Your task to perform on an android device: Open network settings Image 0: 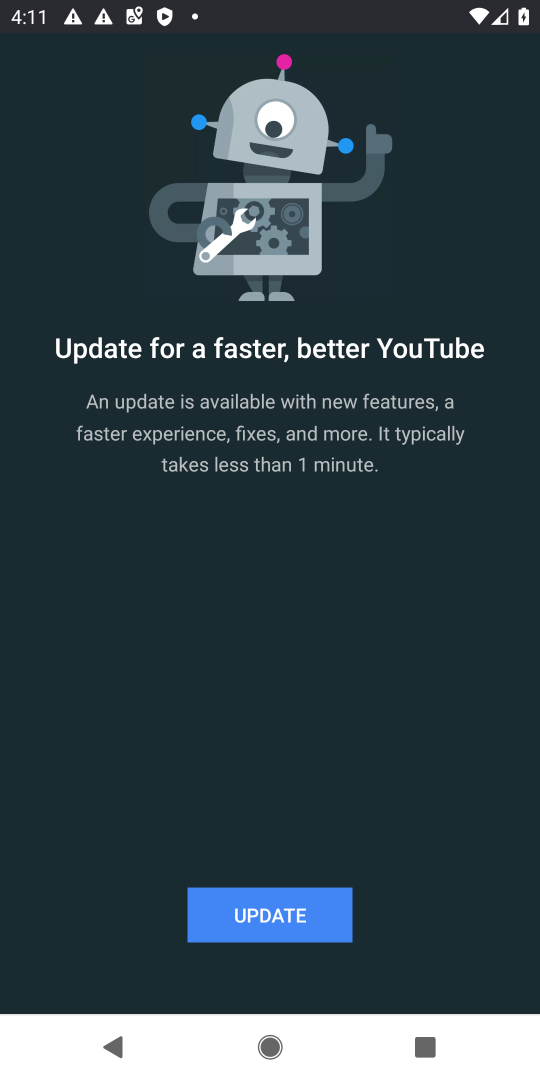
Step 0: press home button
Your task to perform on an android device: Open network settings Image 1: 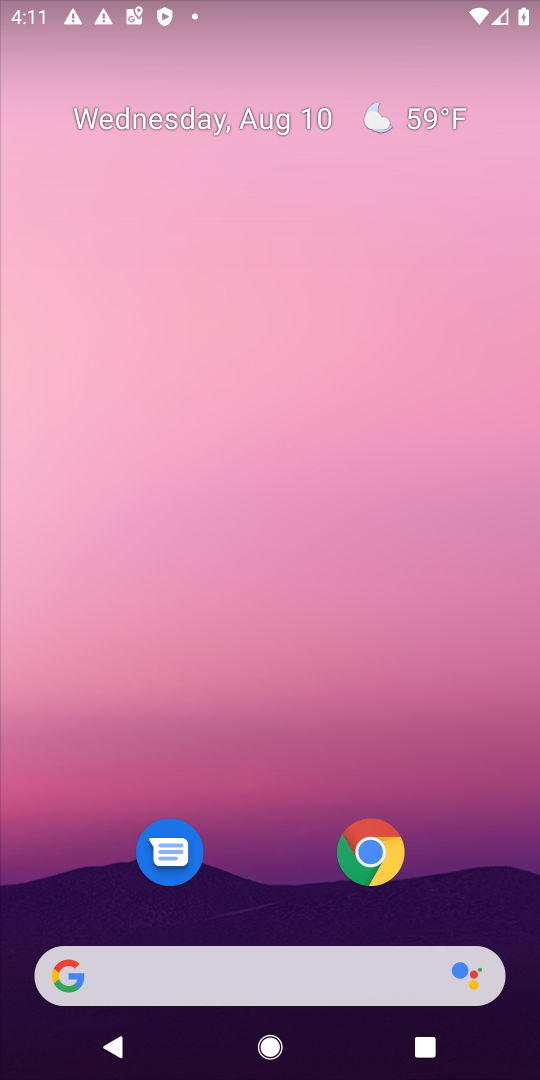
Step 1: drag from (521, 841) to (231, 314)
Your task to perform on an android device: Open network settings Image 2: 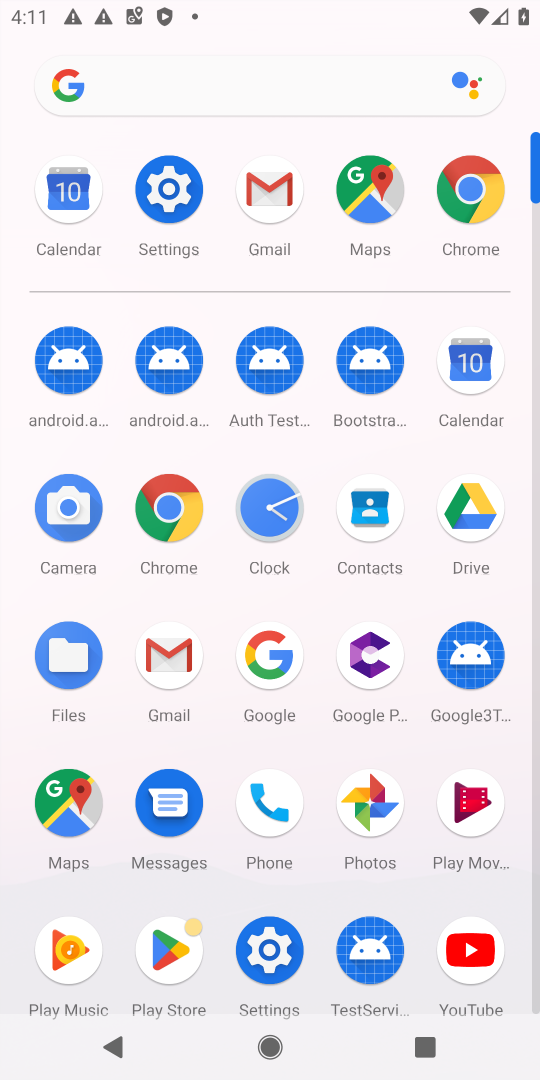
Step 2: click (275, 956)
Your task to perform on an android device: Open network settings Image 3: 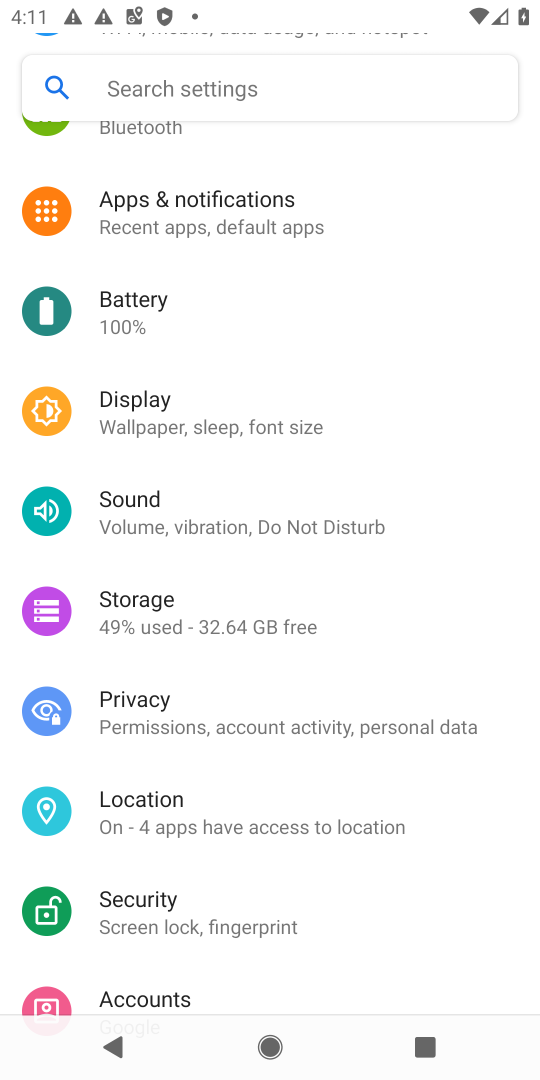
Step 3: drag from (335, 177) to (537, 761)
Your task to perform on an android device: Open network settings Image 4: 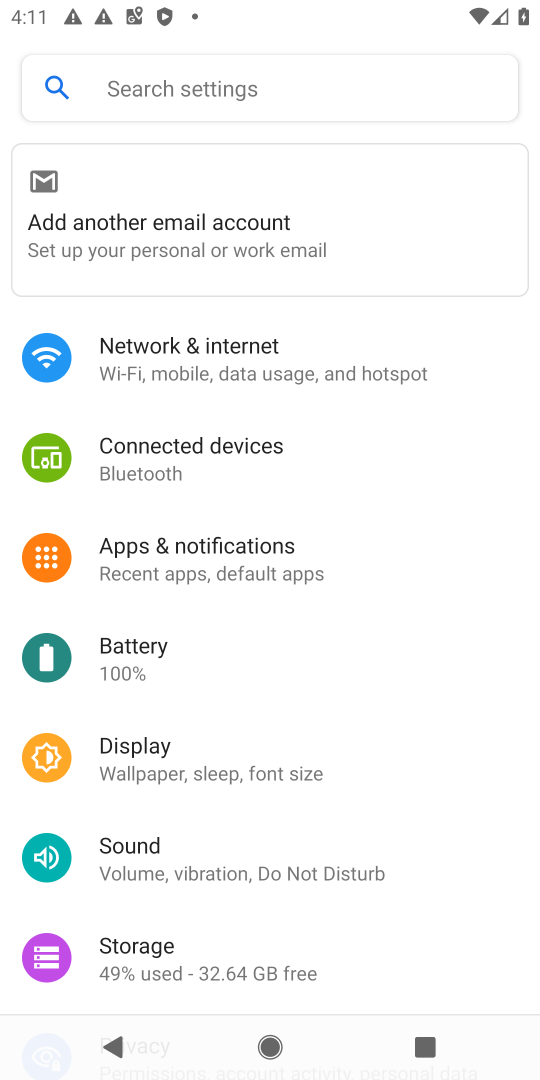
Step 4: click (232, 356)
Your task to perform on an android device: Open network settings Image 5: 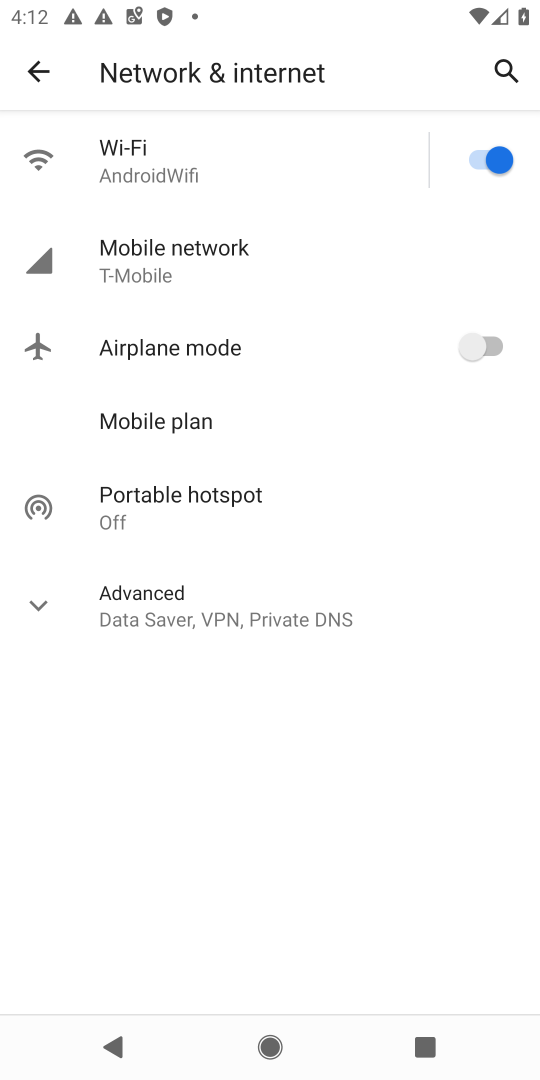
Step 5: task complete